Your task to perform on an android device: What's the weather going to be tomorrow? Image 0: 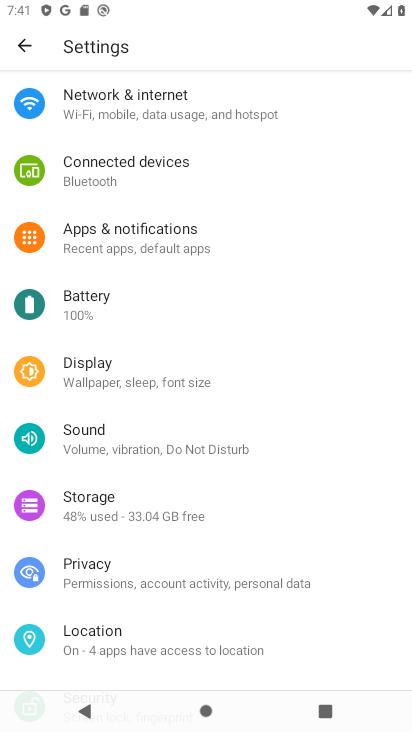
Step 0: press home button
Your task to perform on an android device: What's the weather going to be tomorrow? Image 1: 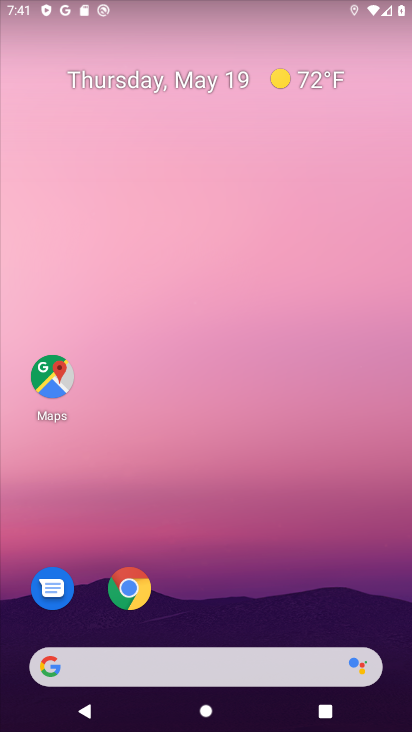
Step 1: click (314, 82)
Your task to perform on an android device: What's the weather going to be tomorrow? Image 2: 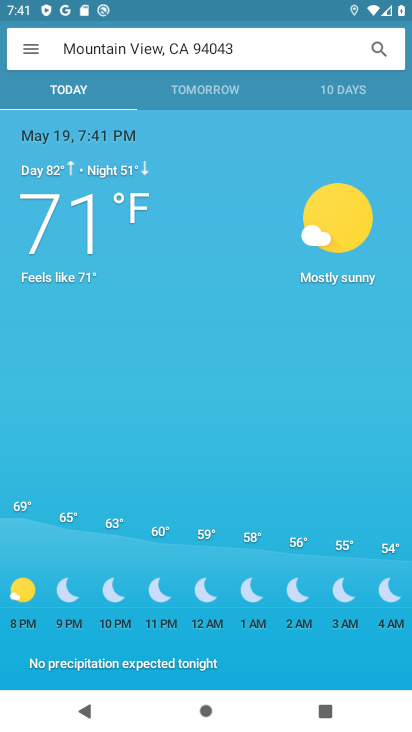
Step 2: click (216, 100)
Your task to perform on an android device: What's the weather going to be tomorrow? Image 3: 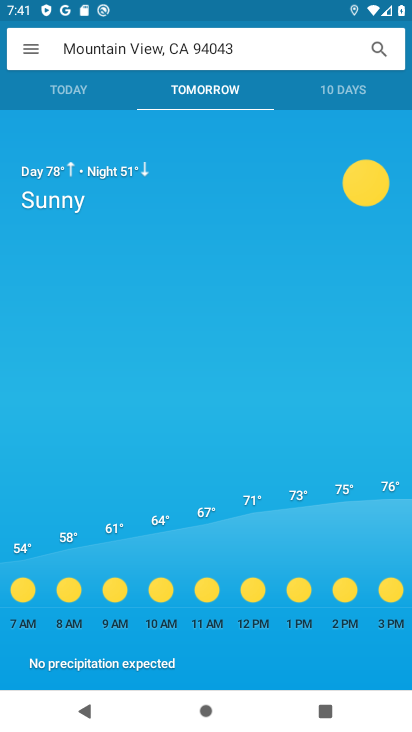
Step 3: task complete